Your task to perform on an android device: check battery use Image 0: 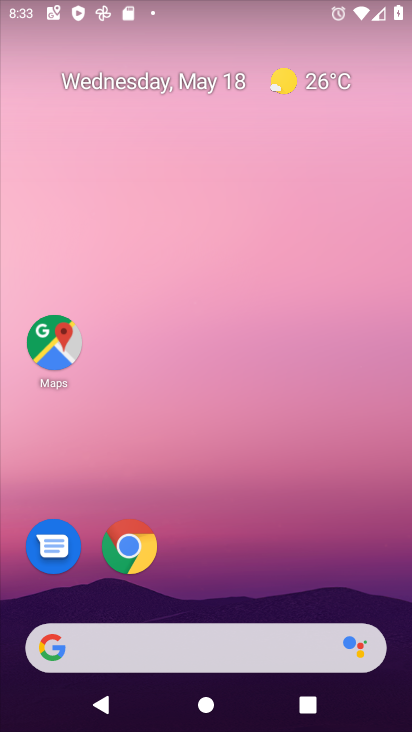
Step 0: drag from (389, 653) to (387, 211)
Your task to perform on an android device: check battery use Image 1: 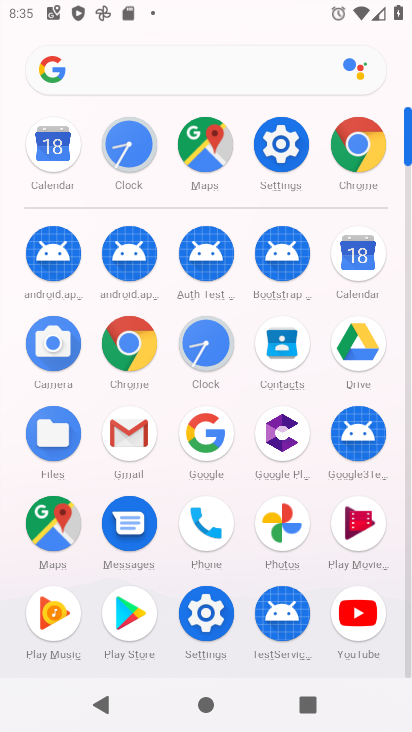
Step 1: click (189, 626)
Your task to perform on an android device: check battery use Image 2: 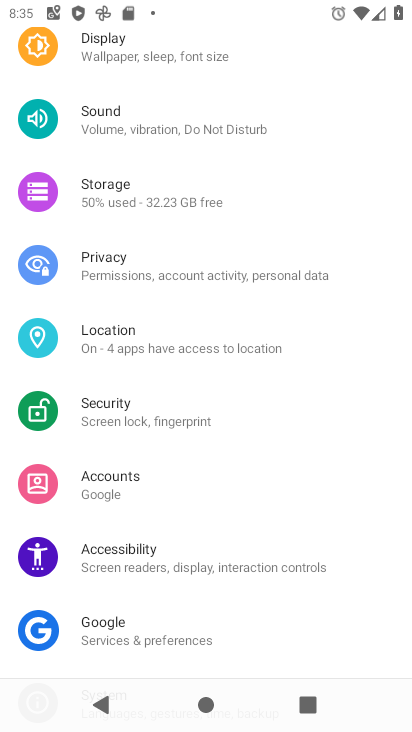
Step 2: drag from (179, 174) to (183, 538)
Your task to perform on an android device: check battery use Image 3: 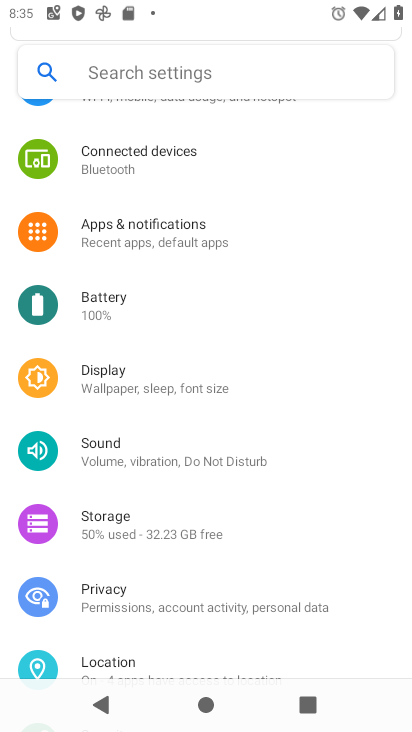
Step 3: click (141, 300)
Your task to perform on an android device: check battery use Image 4: 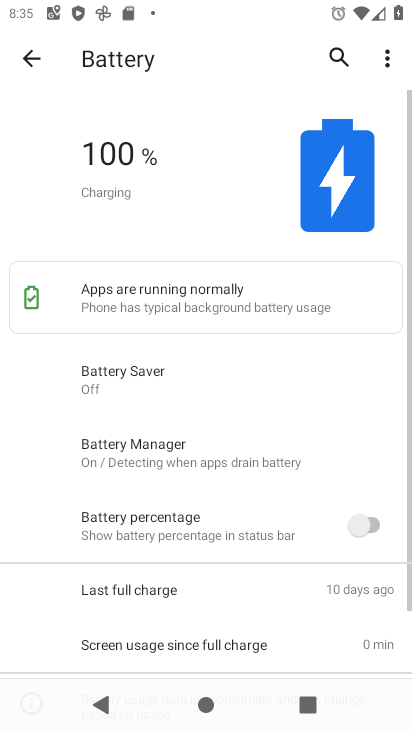
Step 4: task complete